Your task to perform on an android device: Open the calendar app, open the side menu, and click the "Day" option Image 0: 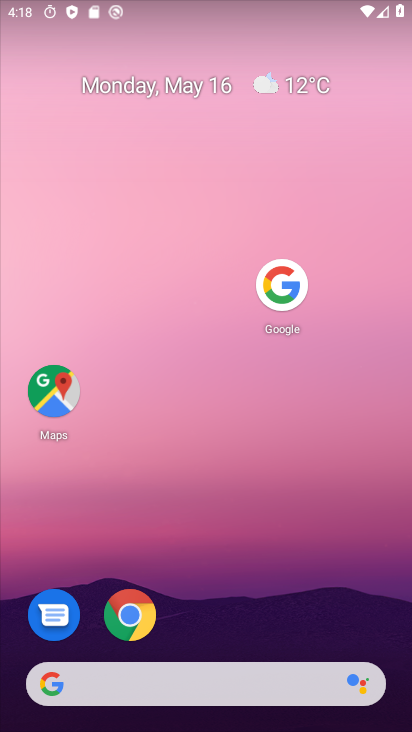
Step 0: drag from (214, 655) to (135, 2)
Your task to perform on an android device: Open the calendar app, open the side menu, and click the "Day" option Image 1: 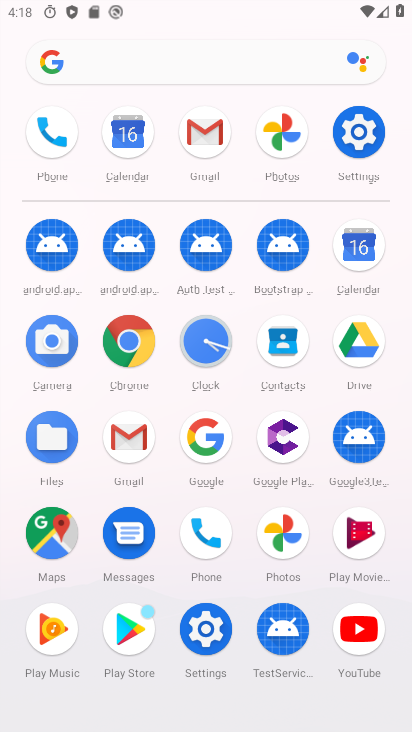
Step 1: click (360, 245)
Your task to perform on an android device: Open the calendar app, open the side menu, and click the "Day" option Image 2: 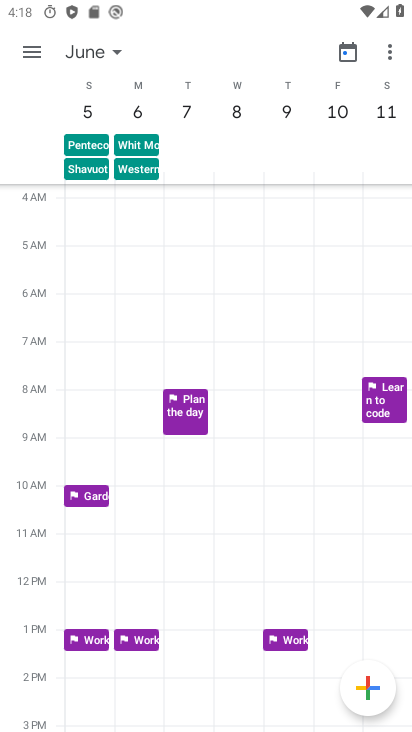
Step 2: click (20, 42)
Your task to perform on an android device: Open the calendar app, open the side menu, and click the "Day" option Image 3: 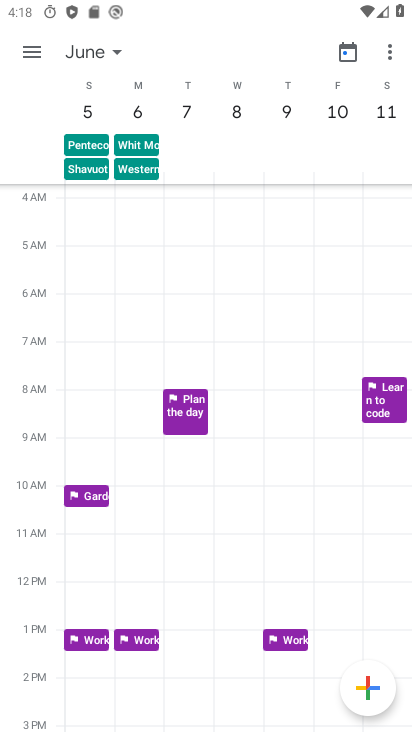
Step 3: click (27, 52)
Your task to perform on an android device: Open the calendar app, open the side menu, and click the "Day" option Image 4: 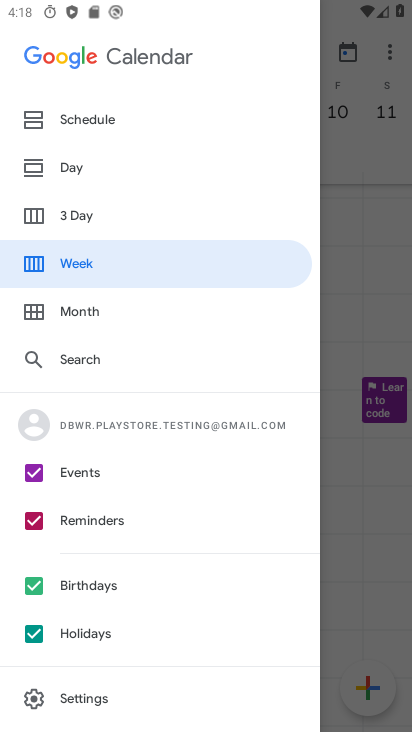
Step 4: click (68, 177)
Your task to perform on an android device: Open the calendar app, open the side menu, and click the "Day" option Image 5: 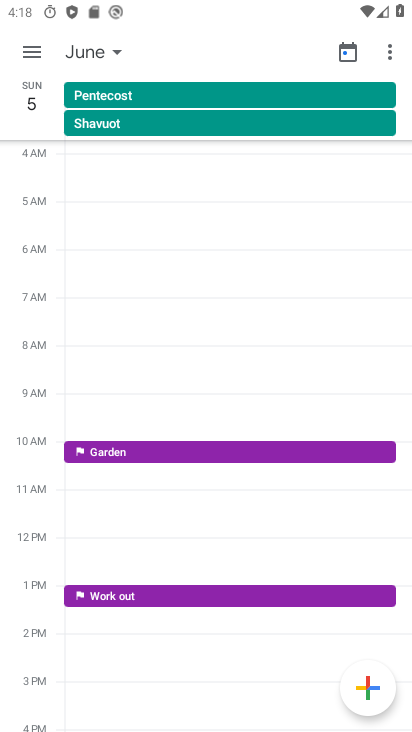
Step 5: task complete